Your task to perform on an android device: set an alarm Image 0: 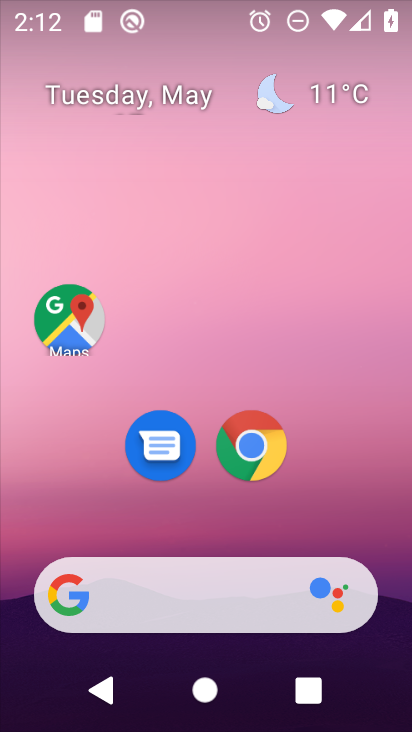
Step 0: drag from (340, 506) to (289, 83)
Your task to perform on an android device: set an alarm Image 1: 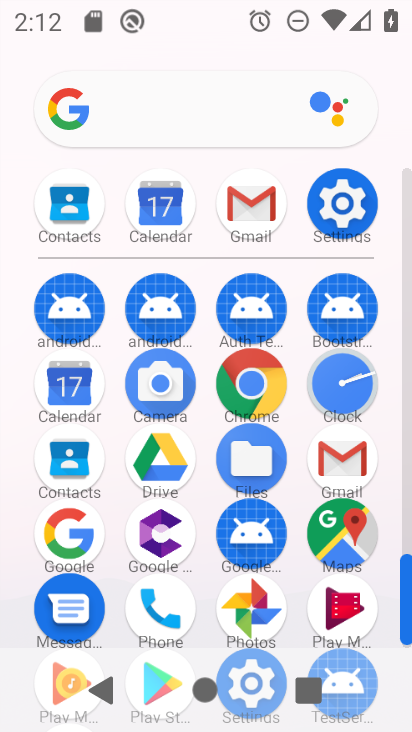
Step 1: click (342, 406)
Your task to perform on an android device: set an alarm Image 2: 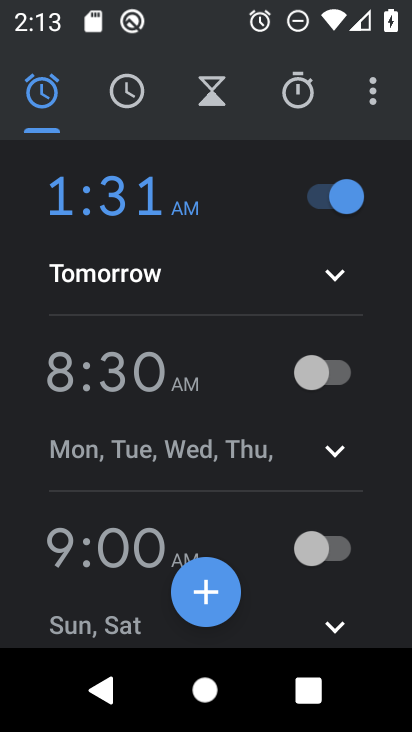
Step 2: click (388, 106)
Your task to perform on an android device: set an alarm Image 3: 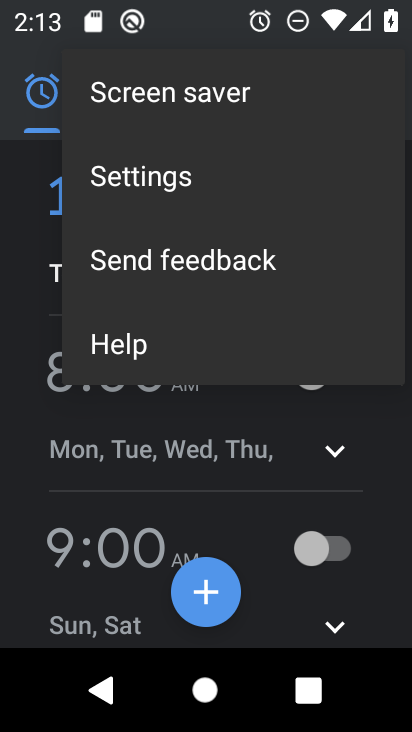
Step 3: click (239, 488)
Your task to perform on an android device: set an alarm Image 4: 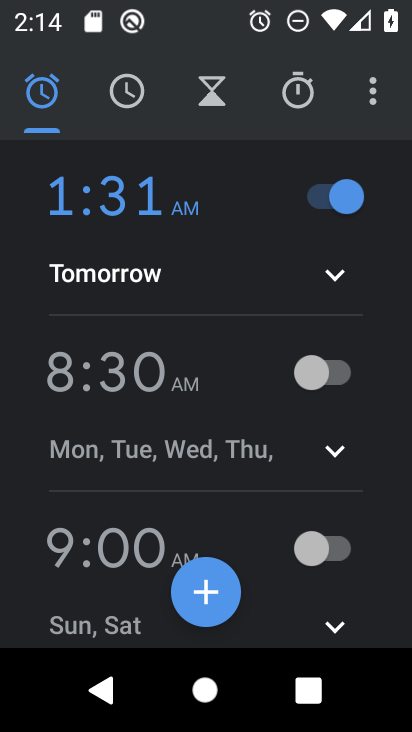
Step 4: task complete